Your task to perform on an android device: turn vacation reply on in the gmail app Image 0: 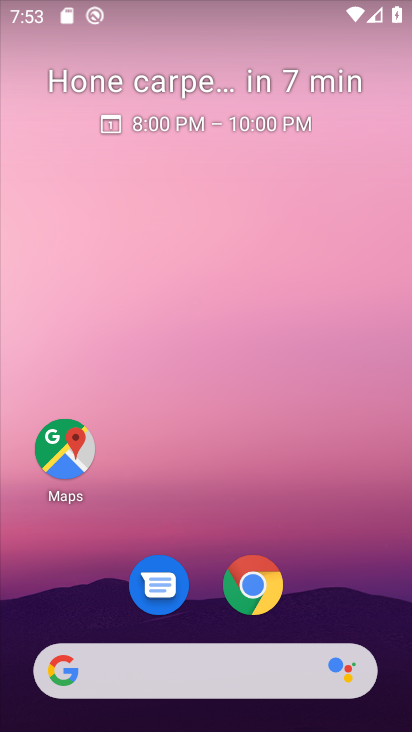
Step 0: drag from (349, 579) to (336, 98)
Your task to perform on an android device: turn vacation reply on in the gmail app Image 1: 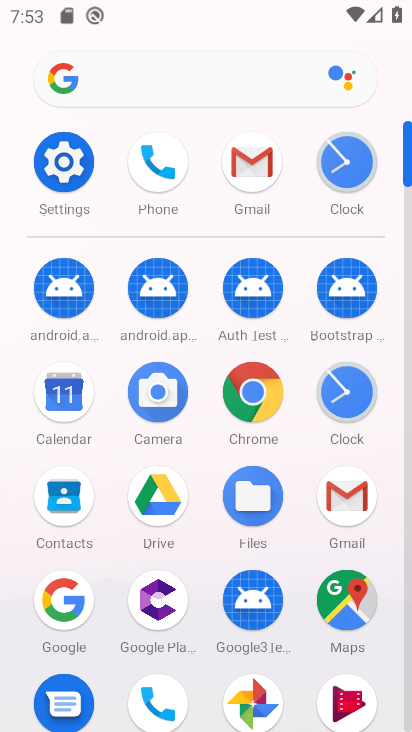
Step 1: click (272, 163)
Your task to perform on an android device: turn vacation reply on in the gmail app Image 2: 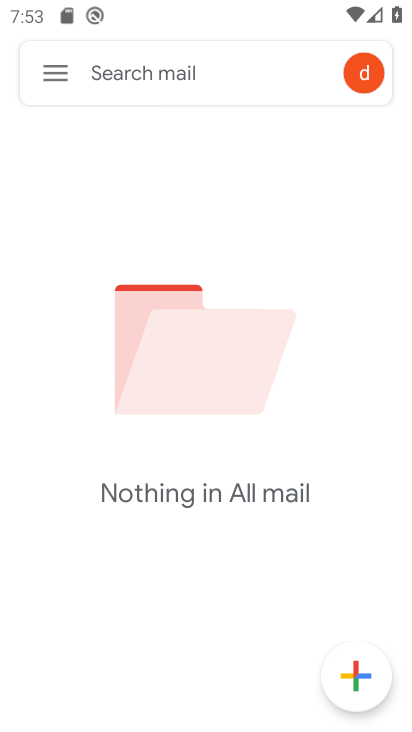
Step 2: click (59, 63)
Your task to perform on an android device: turn vacation reply on in the gmail app Image 3: 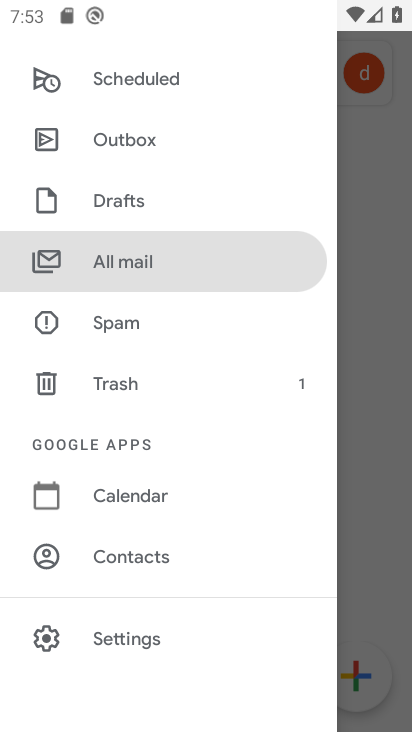
Step 3: click (159, 631)
Your task to perform on an android device: turn vacation reply on in the gmail app Image 4: 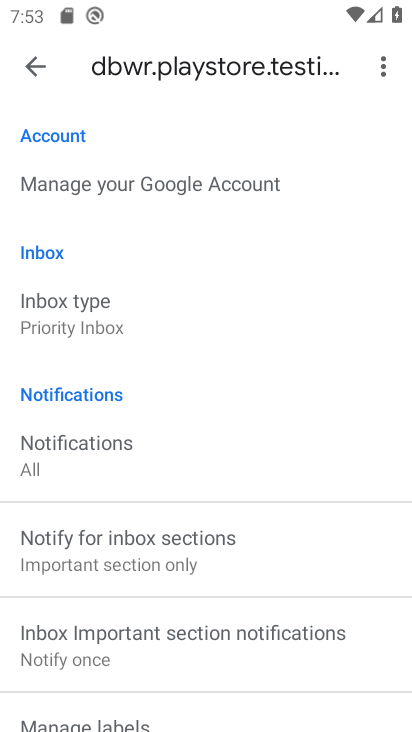
Step 4: drag from (193, 668) to (241, 0)
Your task to perform on an android device: turn vacation reply on in the gmail app Image 5: 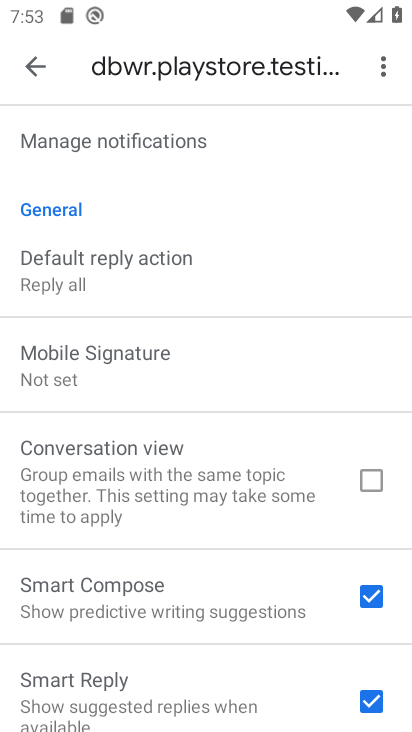
Step 5: drag from (176, 675) to (246, 0)
Your task to perform on an android device: turn vacation reply on in the gmail app Image 6: 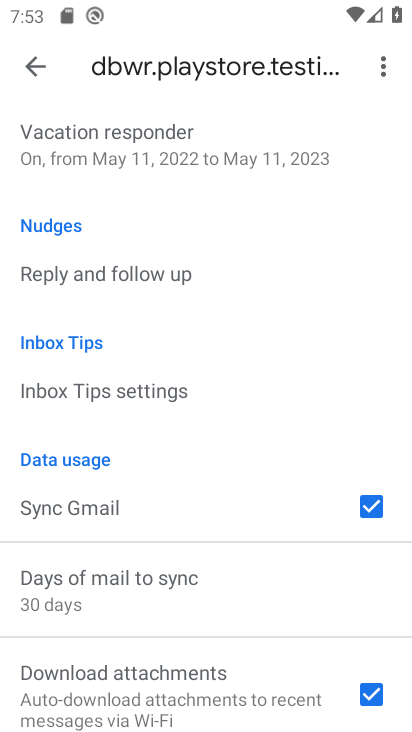
Step 6: click (225, 147)
Your task to perform on an android device: turn vacation reply on in the gmail app Image 7: 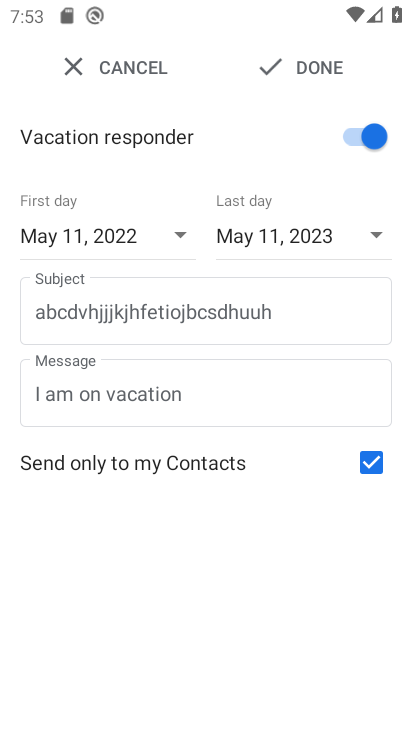
Step 7: task complete